Your task to perform on an android device: move an email to a new category in the gmail app Image 0: 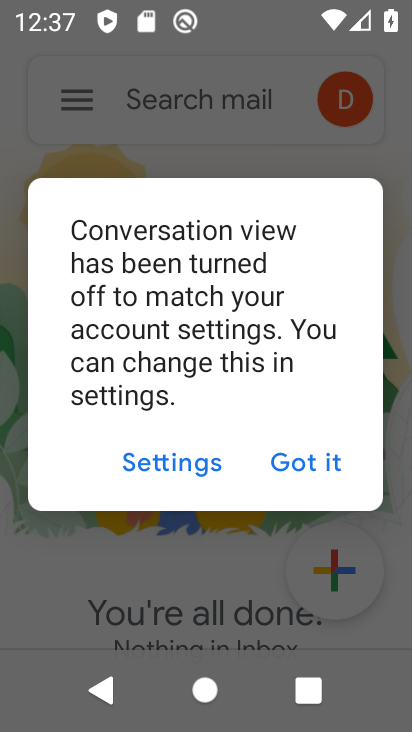
Step 0: press home button
Your task to perform on an android device: move an email to a new category in the gmail app Image 1: 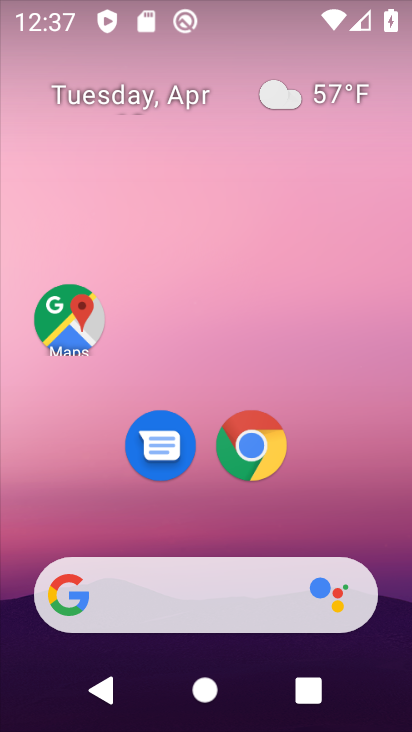
Step 1: drag from (298, 432) to (300, 52)
Your task to perform on an android device: move an email to a new category in the gmail app Image 2: 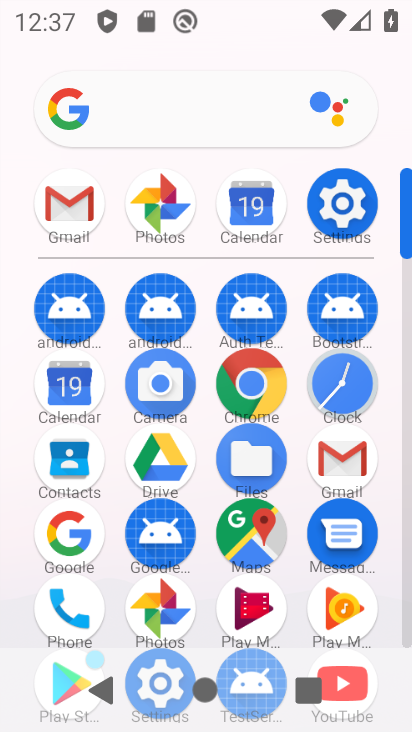
Step 2: click (67, 202)
Your task to perform on an android device: move an email to a new category in the gmail app Image 3: 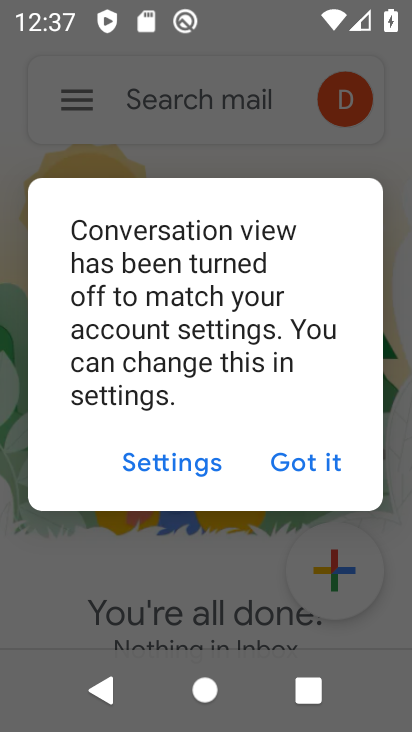
Step 3: click (303, 460)
Your task to perform on an android device: move an email to a new category in the gmail app Image 4: 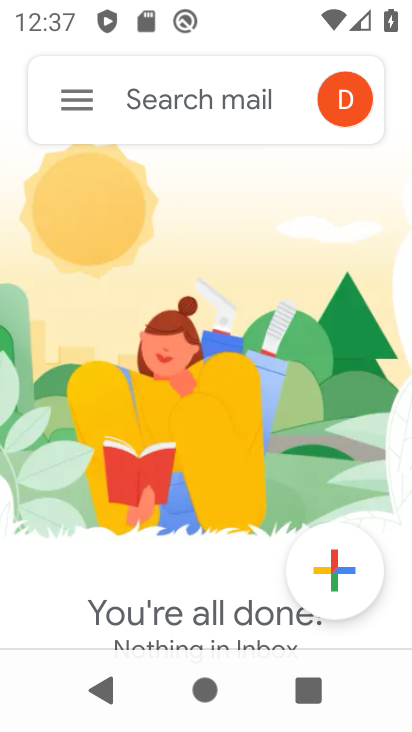
Step 4: click (82, 91)
Your task to perform on an android device: move an email to a new category in the gmail app Image 5: 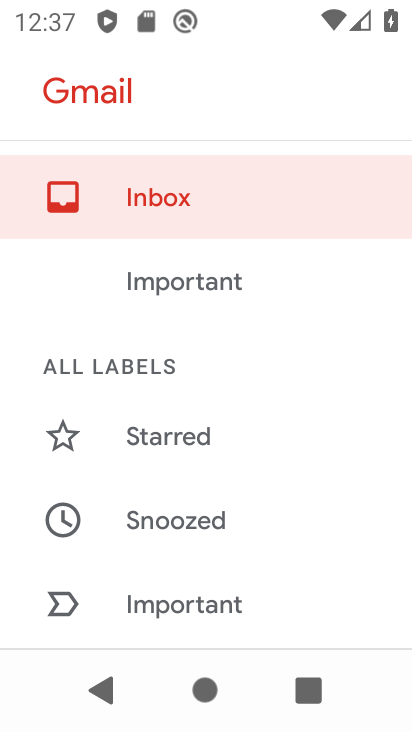
Step 5: drag from (185, 544) to (303, 68)
Your task to perform on an android device: move an email to a new category in the gmail app Image 6: 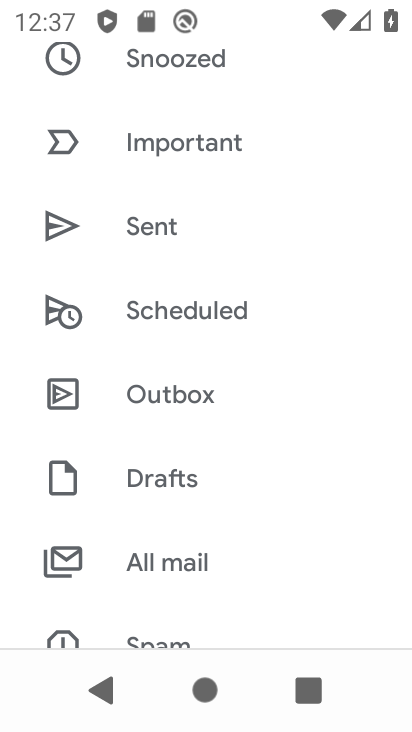
Step 6: click (221, 553)
Your task to perform on an android device: move an email to a new category in the gmail app Image 7: 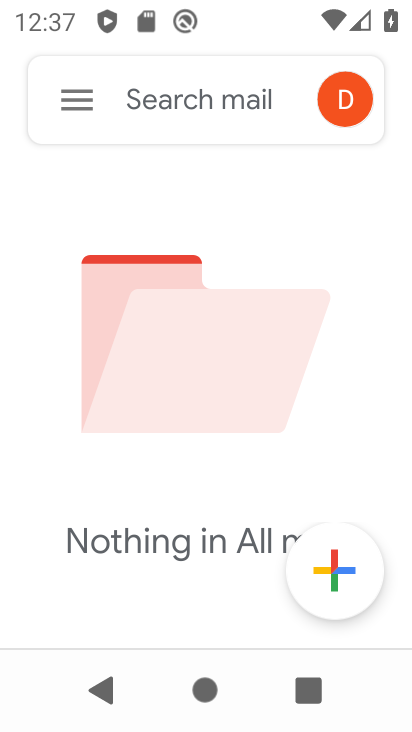
Step 7: task complete